Your task to perform on an android device: What's on my calendar today? Image 0: 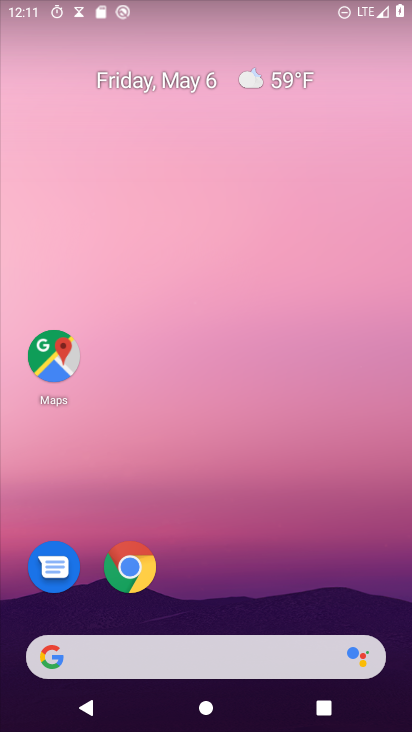
Step 0: drag from (362, 602) to (346, 4)
Your task to perform on an android device: What's on my calendar today? Image 1: 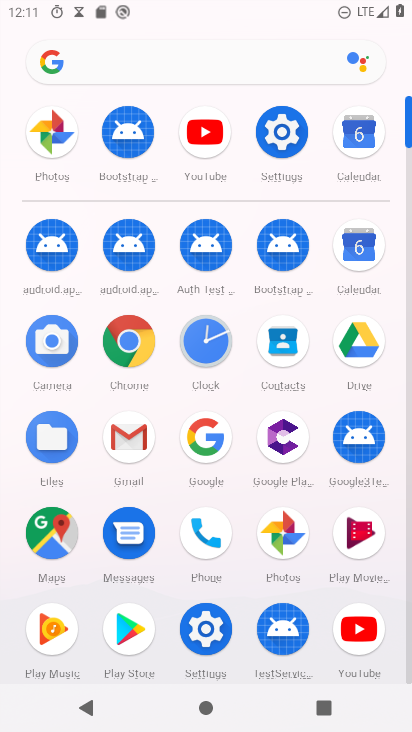
Step 1: click (356, 129)
Your task to perform on an android device: What's on my calendar today? Image 2: 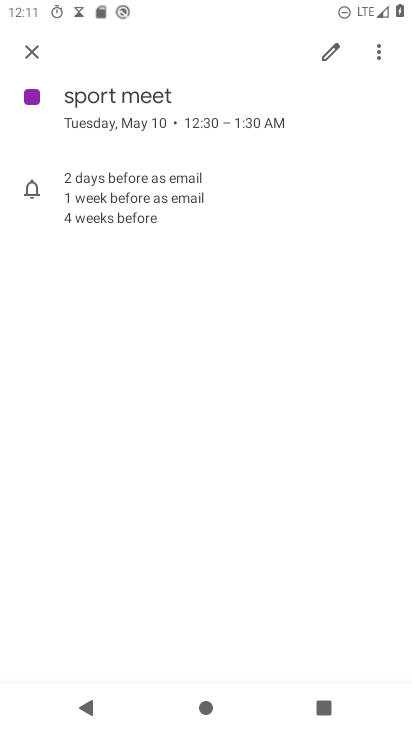
Step 2: click (36, 58)
Your task to perform on an android device: What's on my calendar today? Image 3: 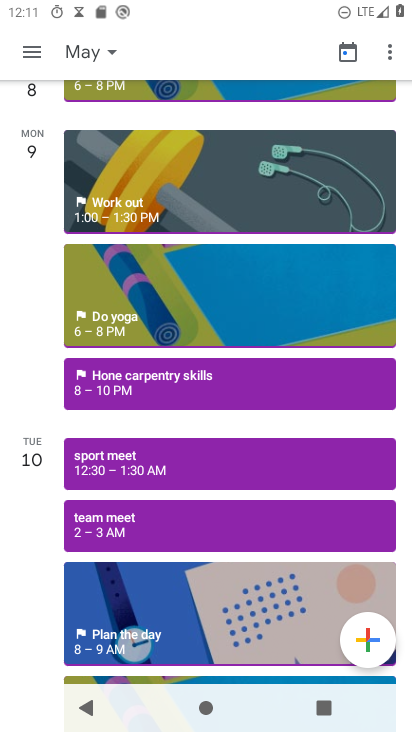
Step 3: drag from (97, 180) to (119, 549)
Your task to perform on an android device: What's on my calendar today? Image 4: 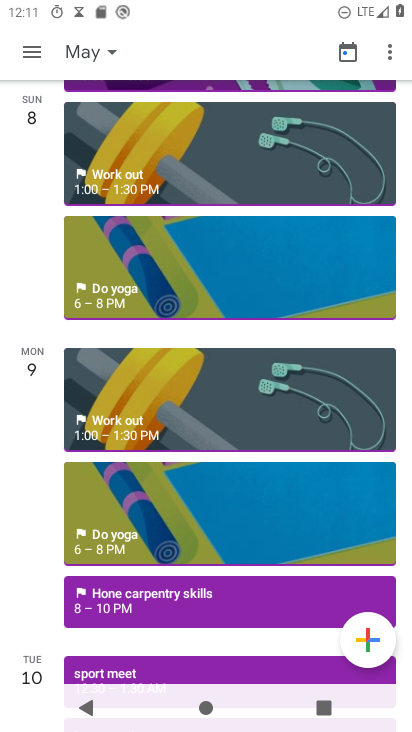
Step 4: drag from (183, 236) to (182, 585)
Your task to perform on an android device: What's on my calendar today? Image 5: 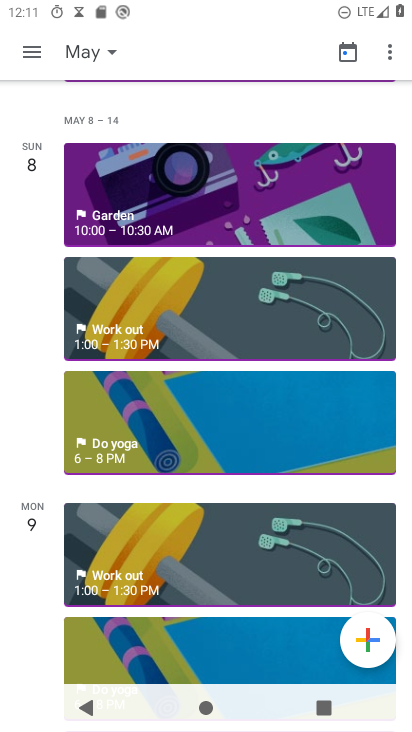
Step 5: drag from (214, 230) to (205, 584)
Your task to perform on an android device: What's on my calendar today? Image 6: 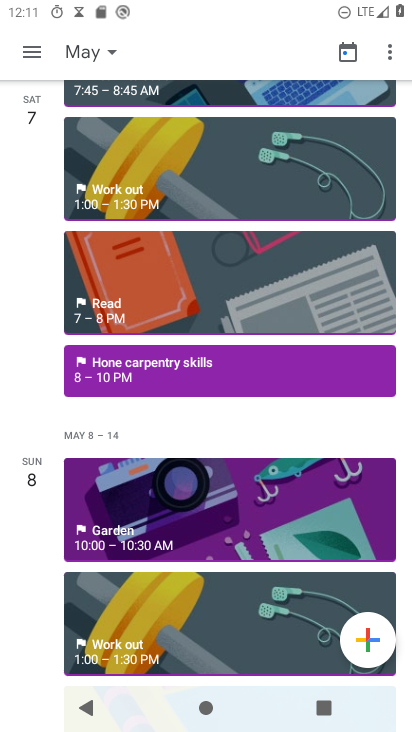
Step 6: click (110, 47)
Your task to perform on an android device: What's on my calendar today? Image 7: 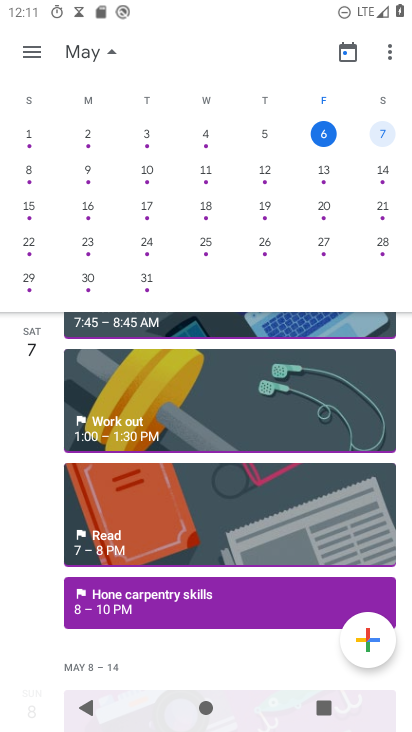
Step 7: click (321, 132)
Your task to perform on an android device: What's on my calendar today? Image 8: 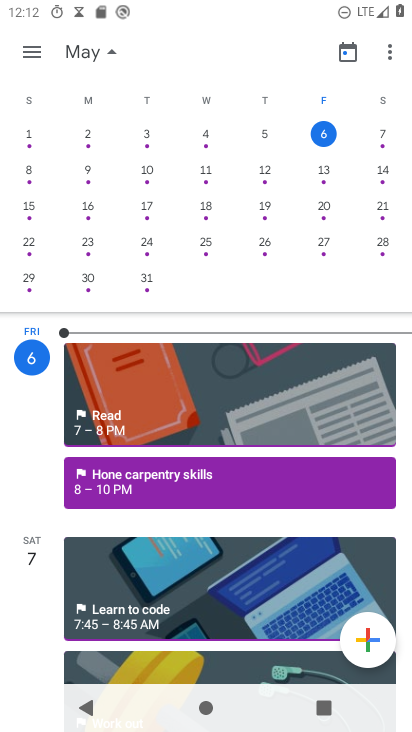
Step 8: click (163, 491)
Your task to perform on an android device: What's on my calendar today? Image 9: 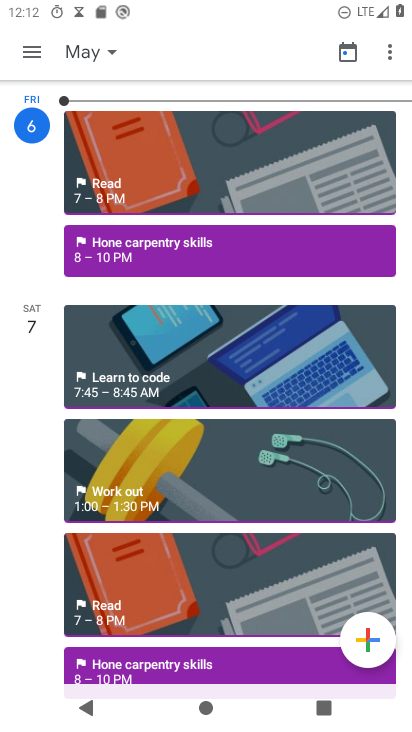
Step 9: click (146, 239)
Your task to perform on an android device: What's on my calendar today? Image 10: 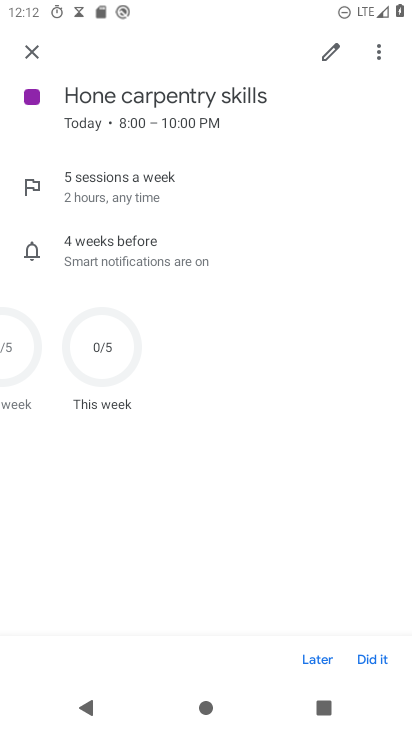
Step 10: task complete